Your task to perform on an android device: Go to Wikipedia Image 0: 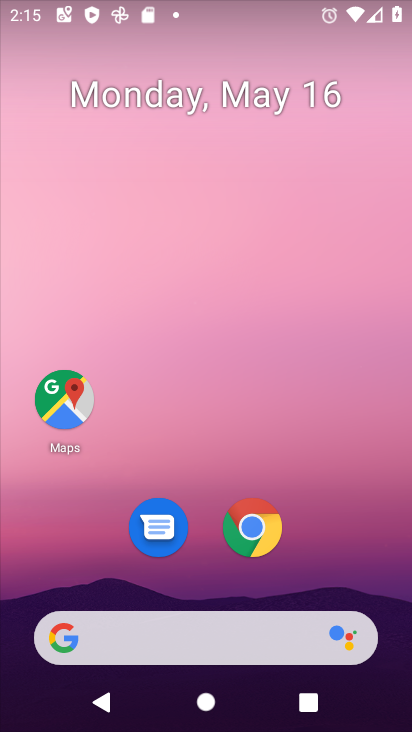
Step 0: drag from (343, 577) to (321, 190)
Your task to perform on an android device: Go to Wikipedia Image 1: 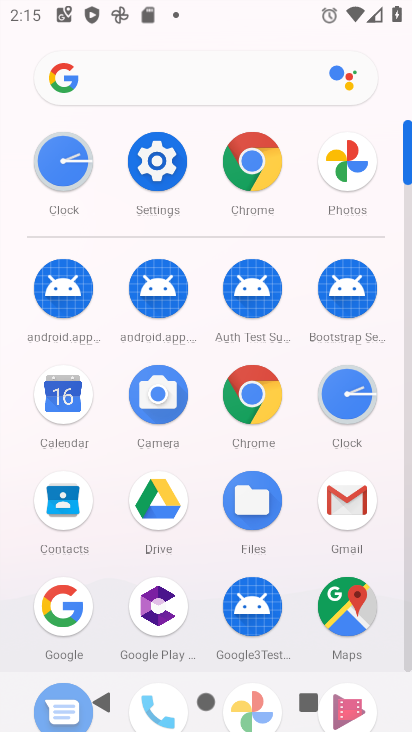
Step 1: click (248, 173)
Your task to perform on an android device: Go to Wikipedia Image 2: 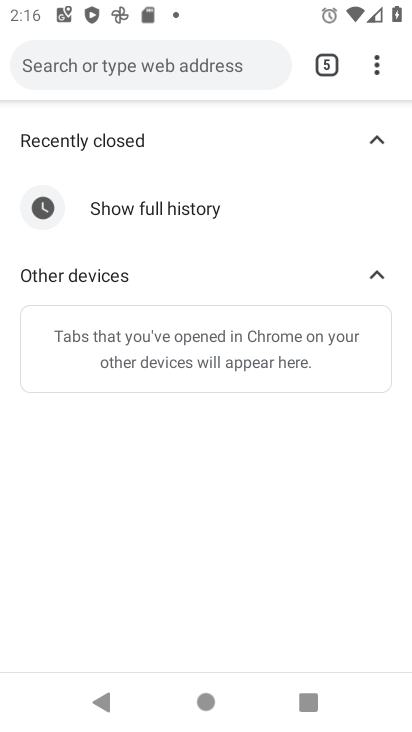
Step 2: click (226, 68)
Your task to perform on an android device: Go to Wikipedia Image 3: 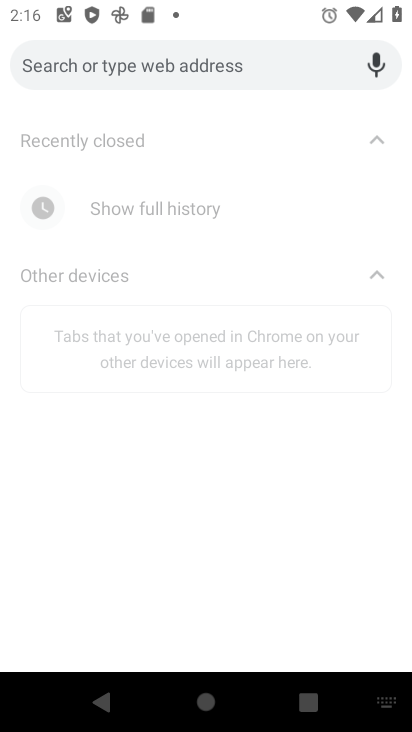
Step 3: type "wikipedia"
Your task to perform on an android device: Go to Wikipedia Image 4: 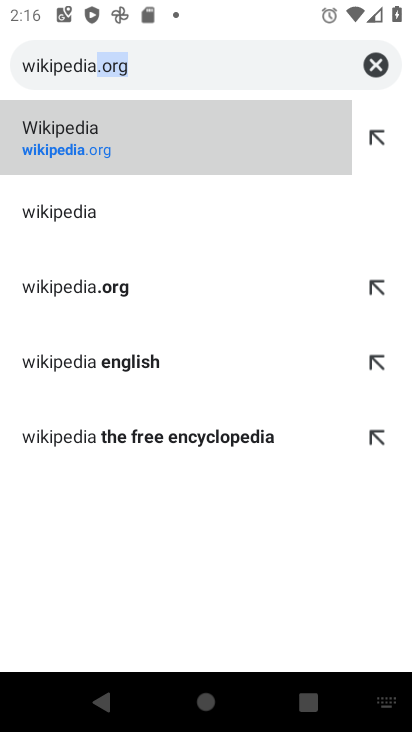
Step 4: click (98, 140)
Your task to perform on an android device: Go to Wikipedia Image 5: 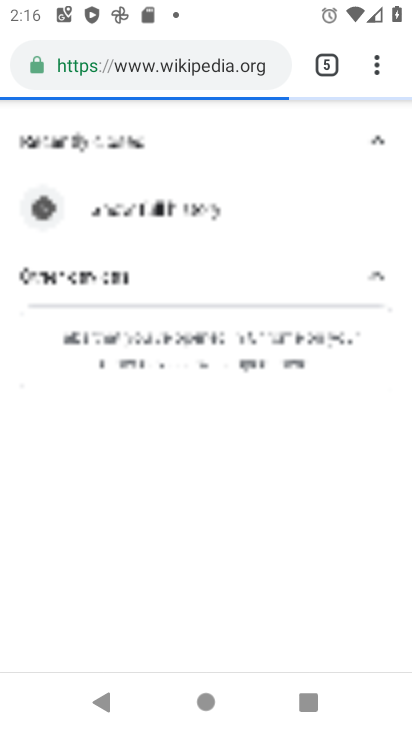
Step 5: task complete